Your task to perform on an android device: Go to ESPN.com Image 0: 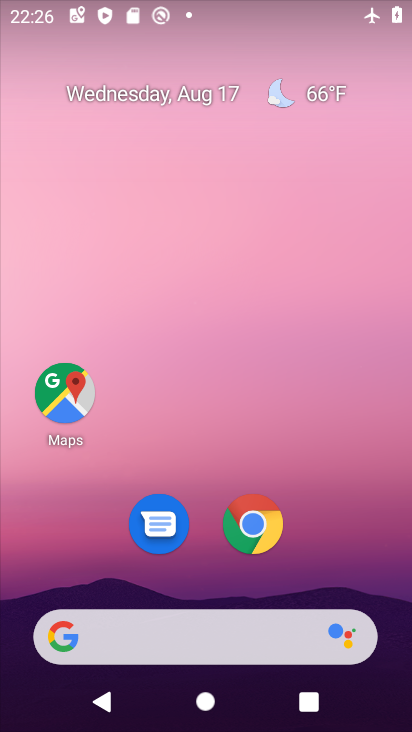
Step 0: click (249, 650)
Your task to perform on an android device: Go to ESPN.com Image 1: 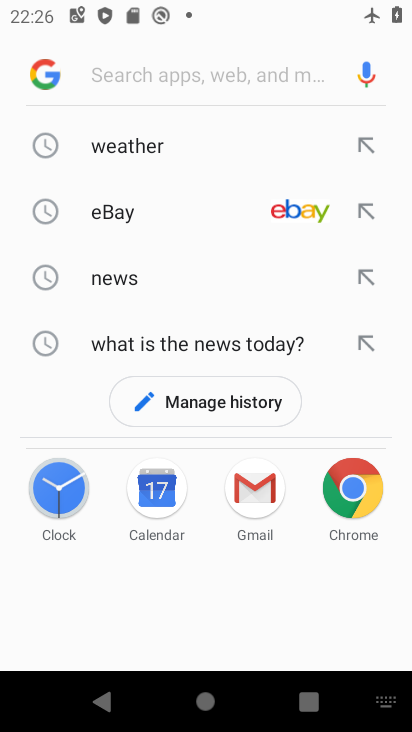
Step 1: type "espn.com"
Your task to perform on an android device: Go to ESPN.com Image 2: 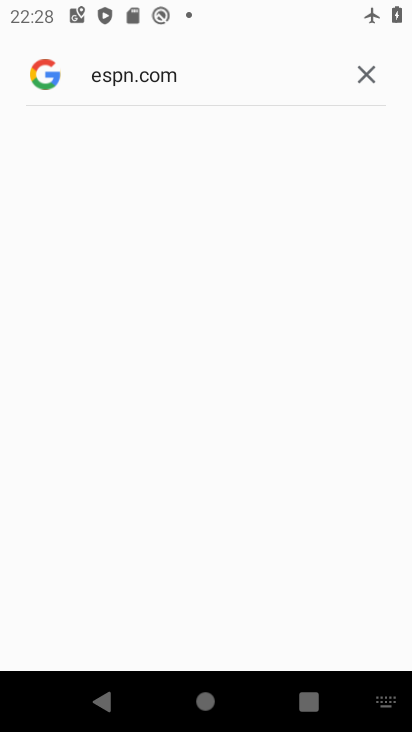
Step 2: task complete